Your task to perform on an android device: Go to Android settings Image 0: 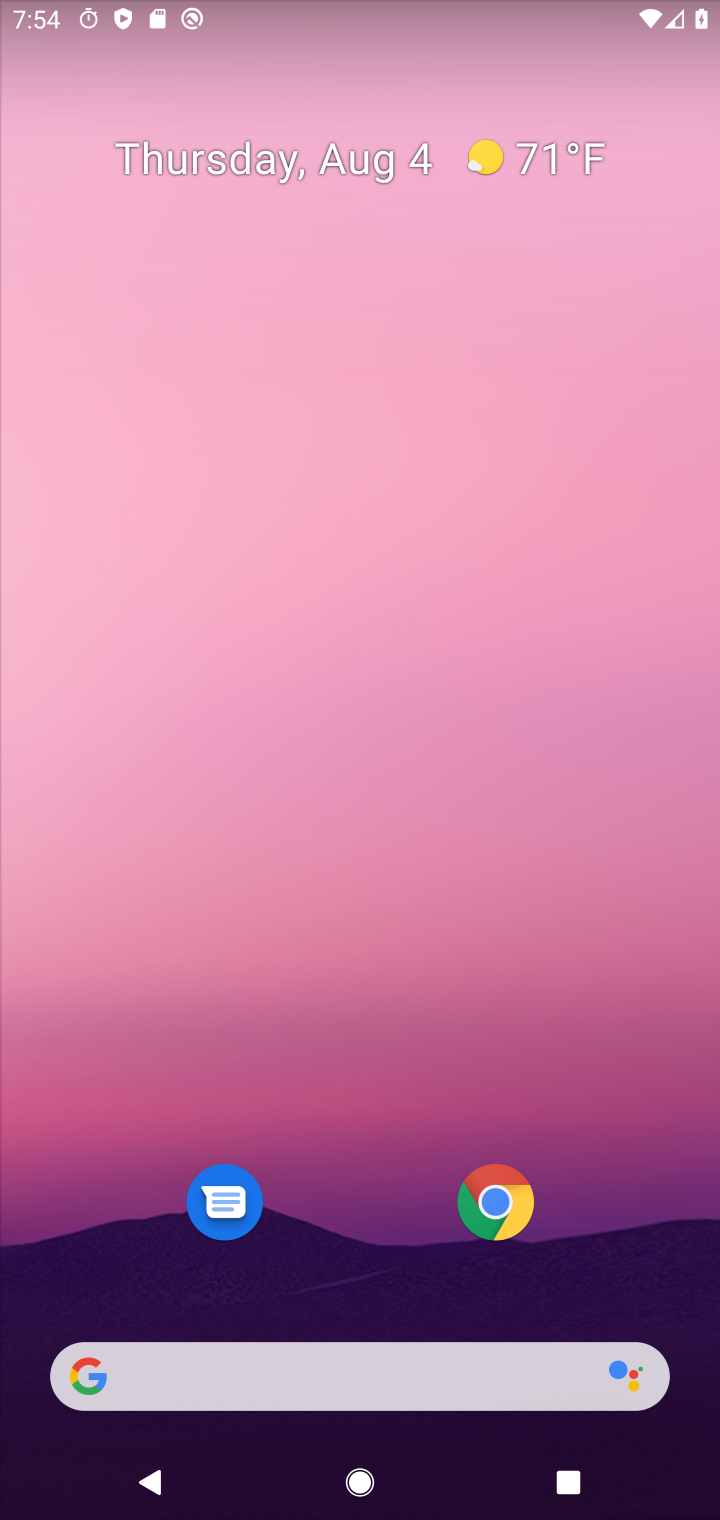
Step 0: click (225, 86)
Your task to perform on an android device: Go to Android settings Image 1: 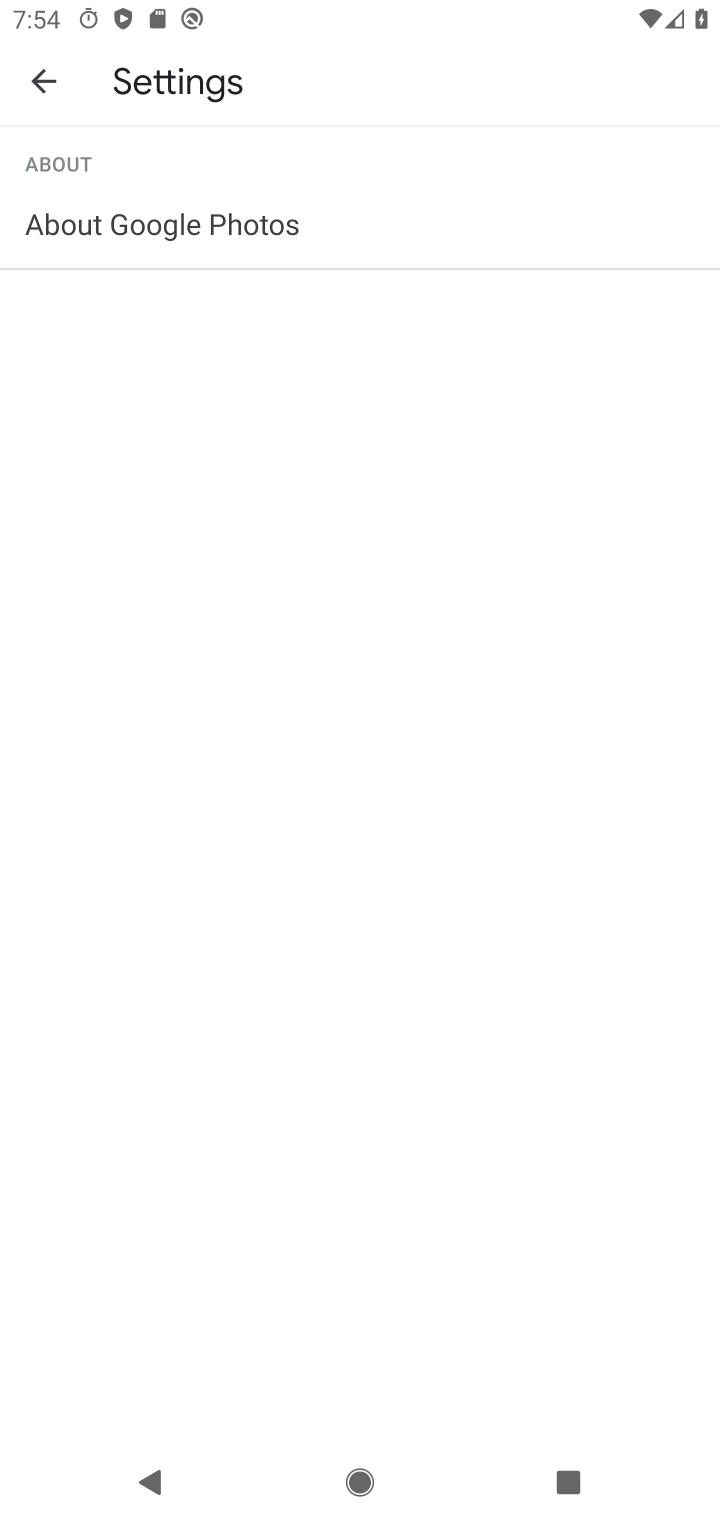
Step 1: press home button
Your task to perform on an android device: Go to Android settings Image 2: 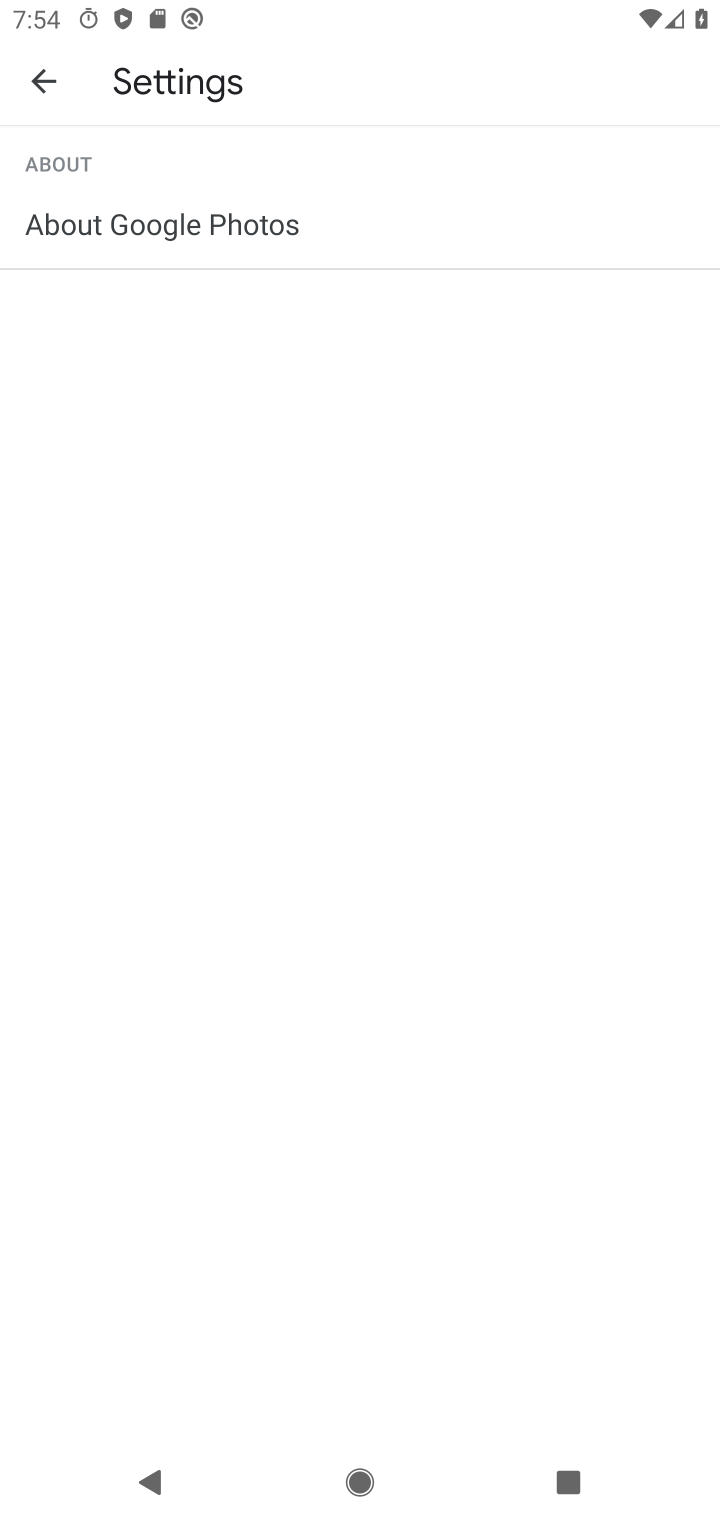
Step 2: press home button
Your task to perform on an android device: Go to Android settings Image 3: 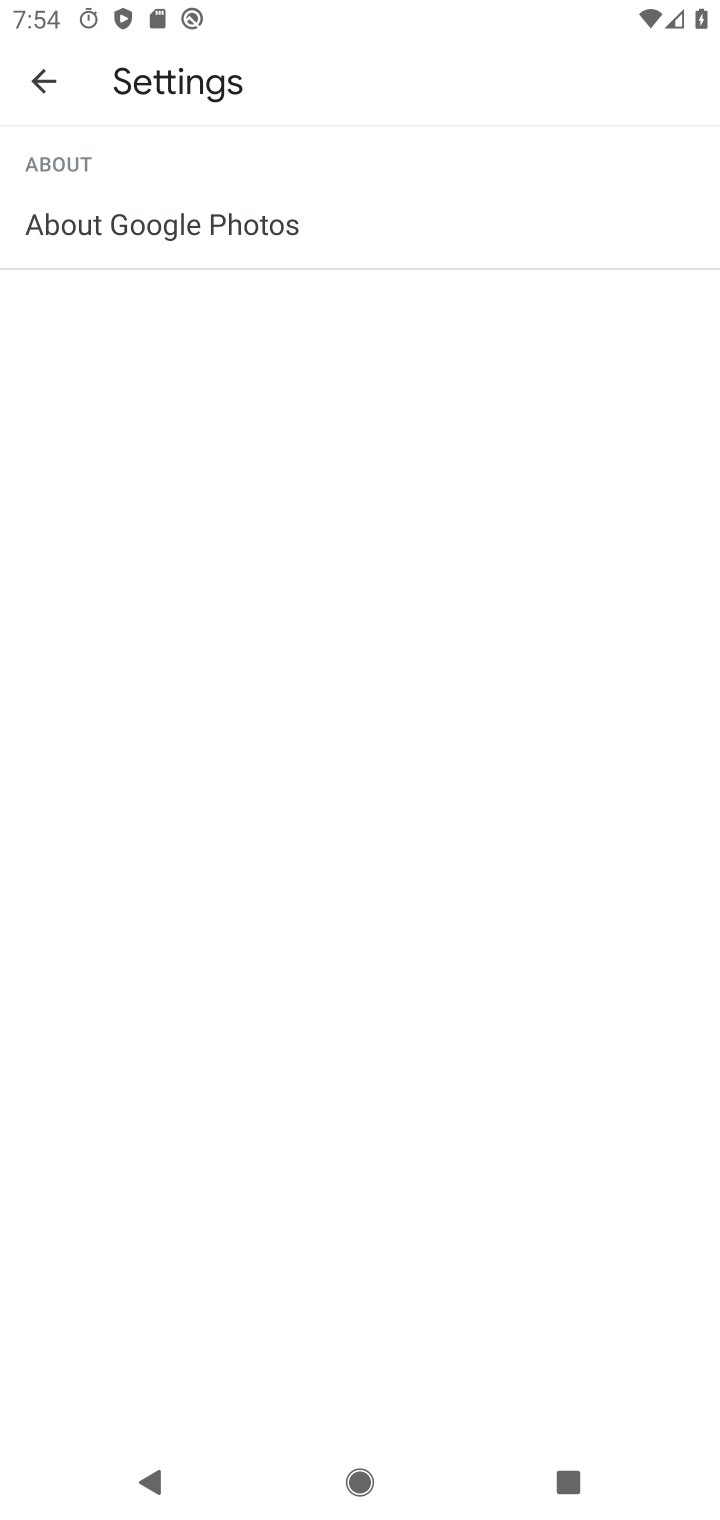
Step 3: drag from (313, 284) to (408, 178)
Your task to perform on an android device: Go to Android settings Image 4: 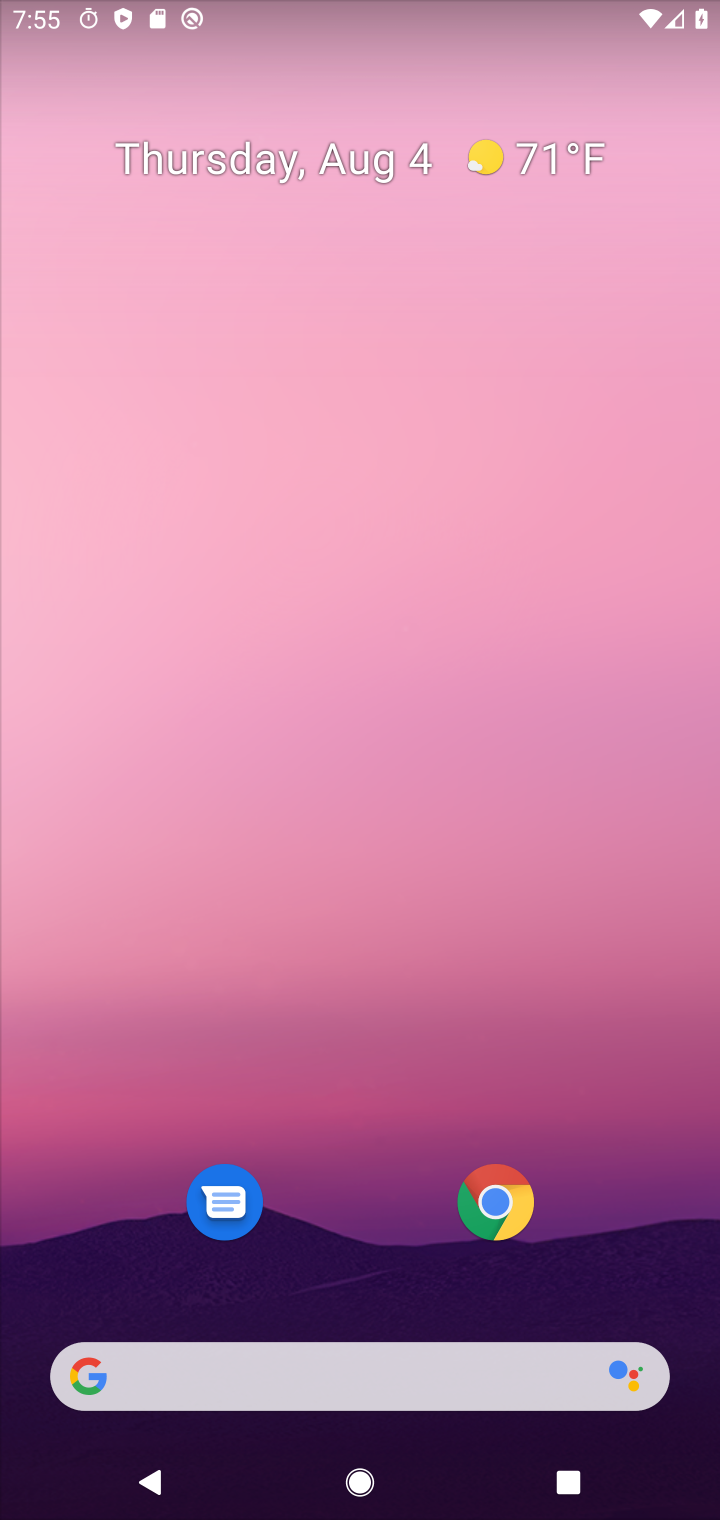
Step 4: drag from (347, 1024) to (512, 93)
Your task to perform on an android device: Go to Android settings Image 5: 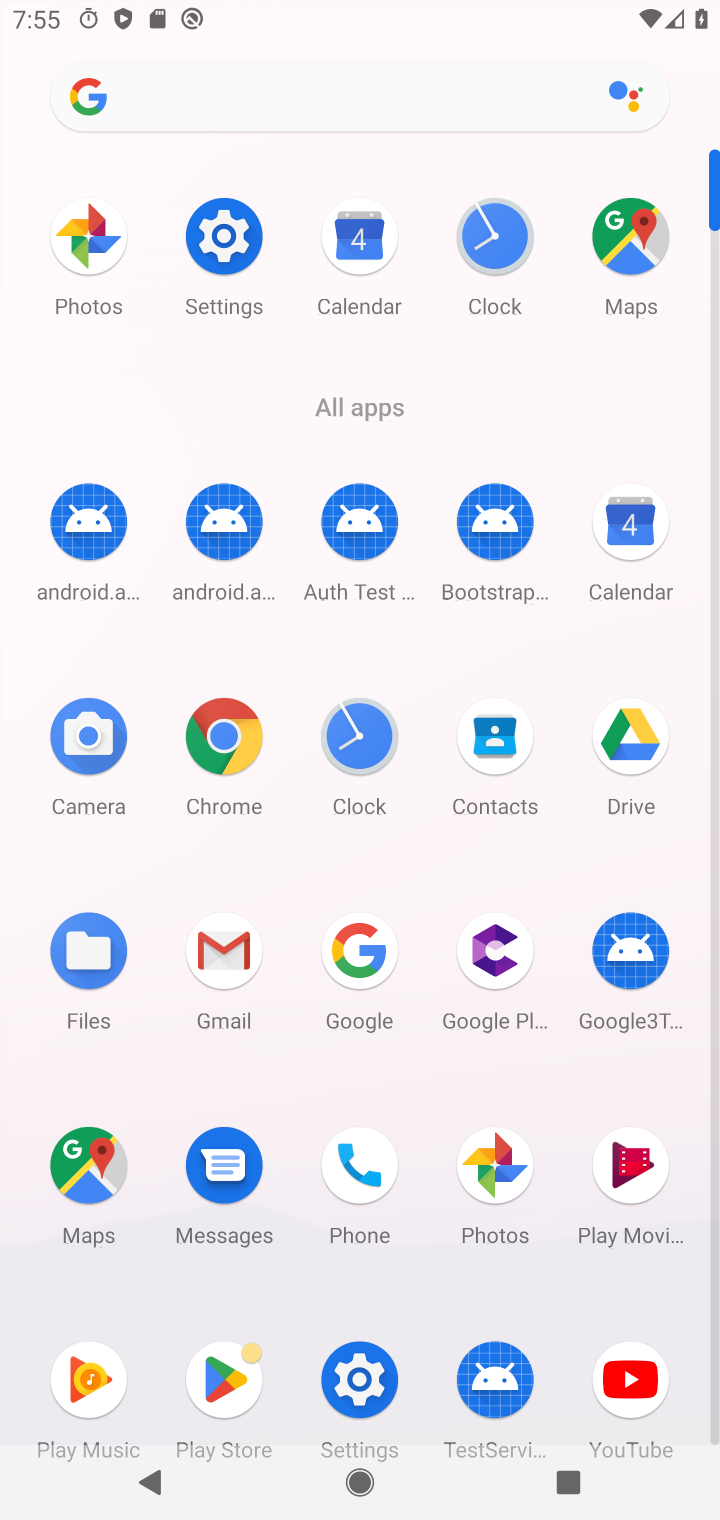
Step 5: click (212, 242)
Your task to perform on an android device: Go to Android settings Image 6: 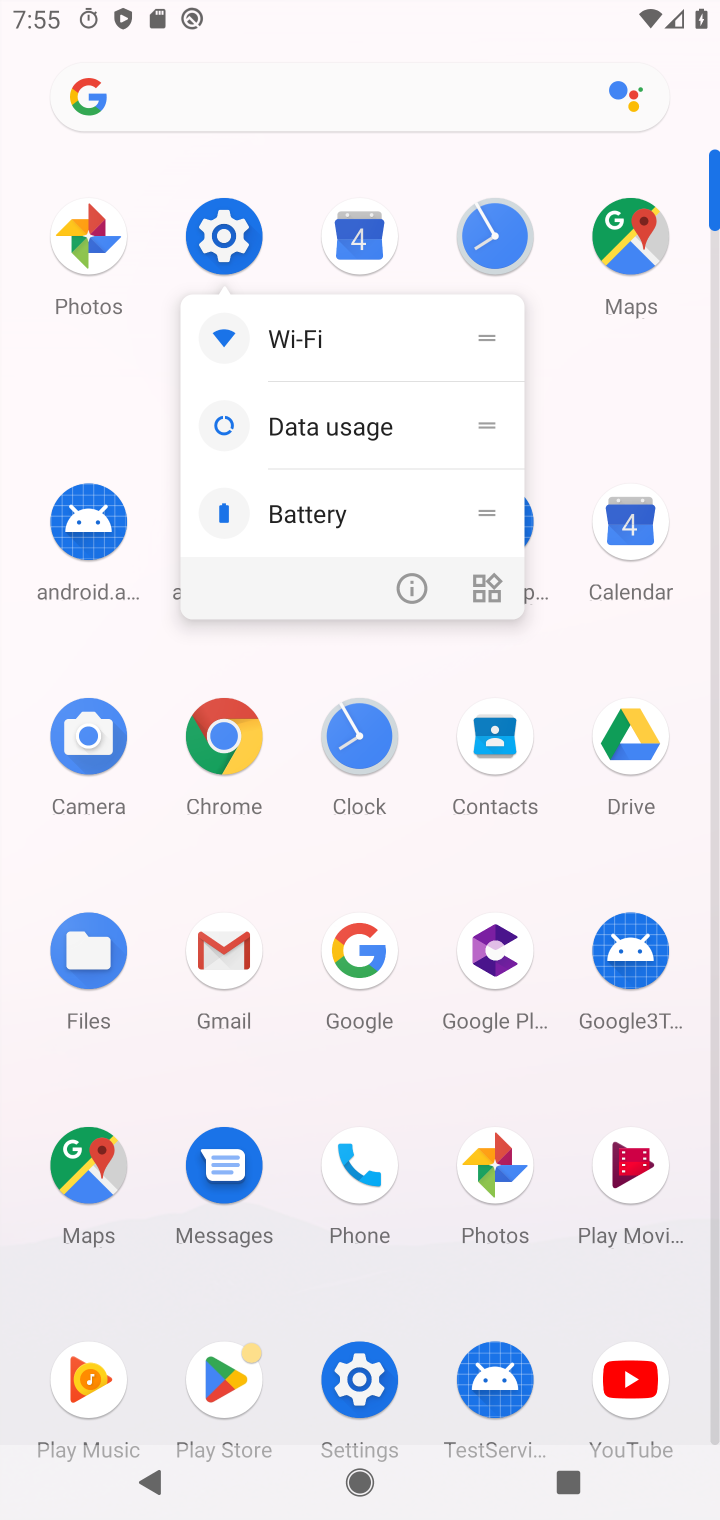
Step 6: click (402, 576)
Your task to perform on an android device: Go to Android settings Image 7: 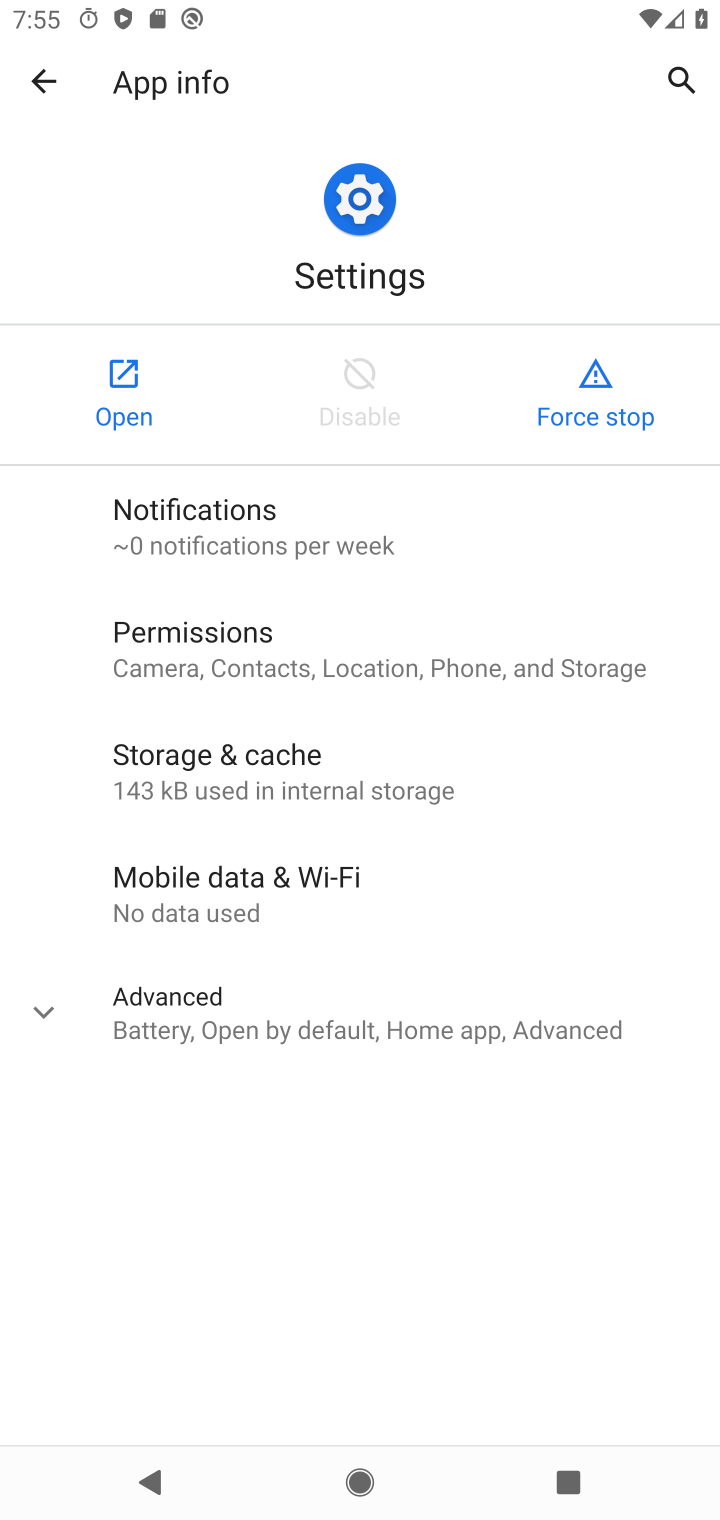
Step 7: click (118, 381)
Your task to perform on an android device: Go to Android settings Image 8: 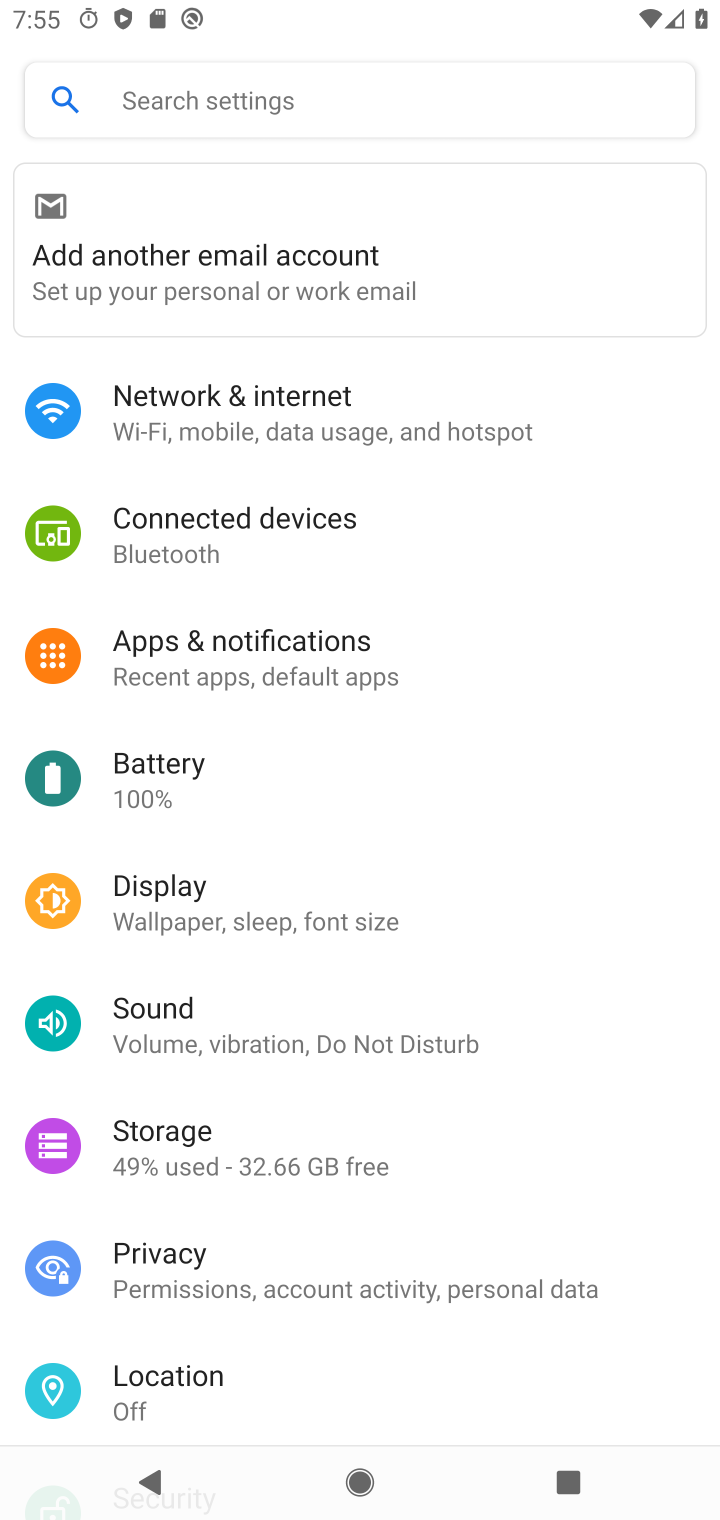
Step 8: drag from (302, 1275) to (533, 252)
Your task to perform on an android device: Go to Android settings Image 9: 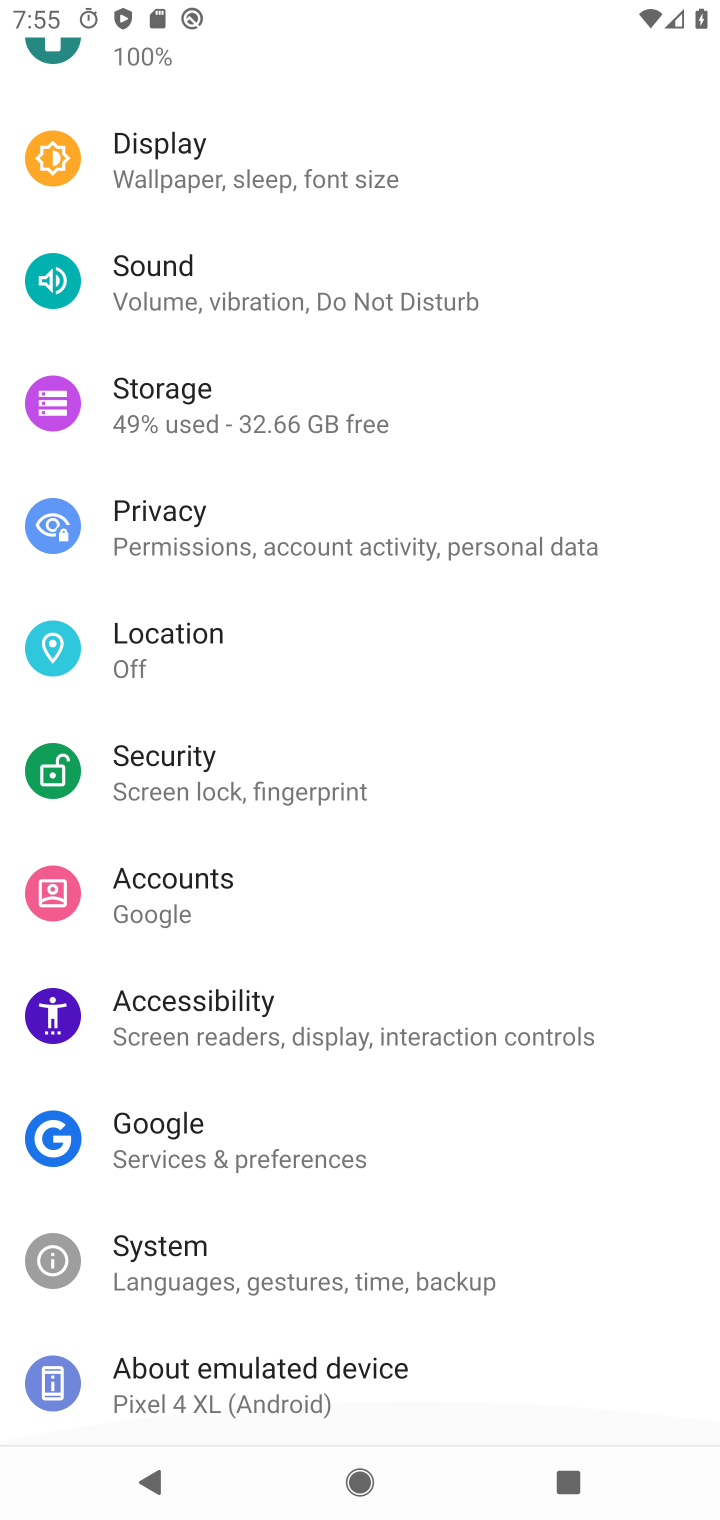
Step 9: drag from (347, 1248) to (582, 226)
Your task to perform on an android device: Go to Android settings Image 10: 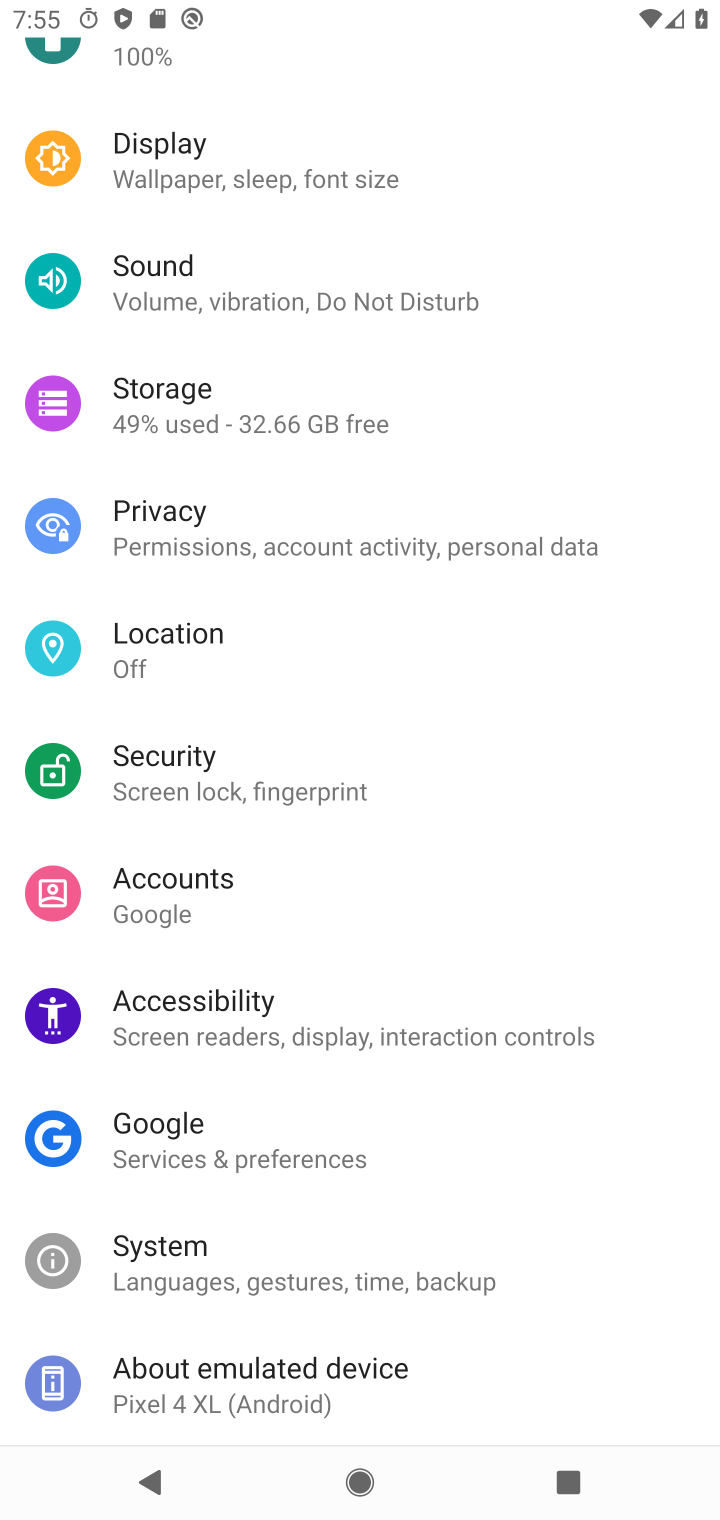
Step 10: click (292, 1355)
Your task to perform on an android device: Go to Android settings Image 11: 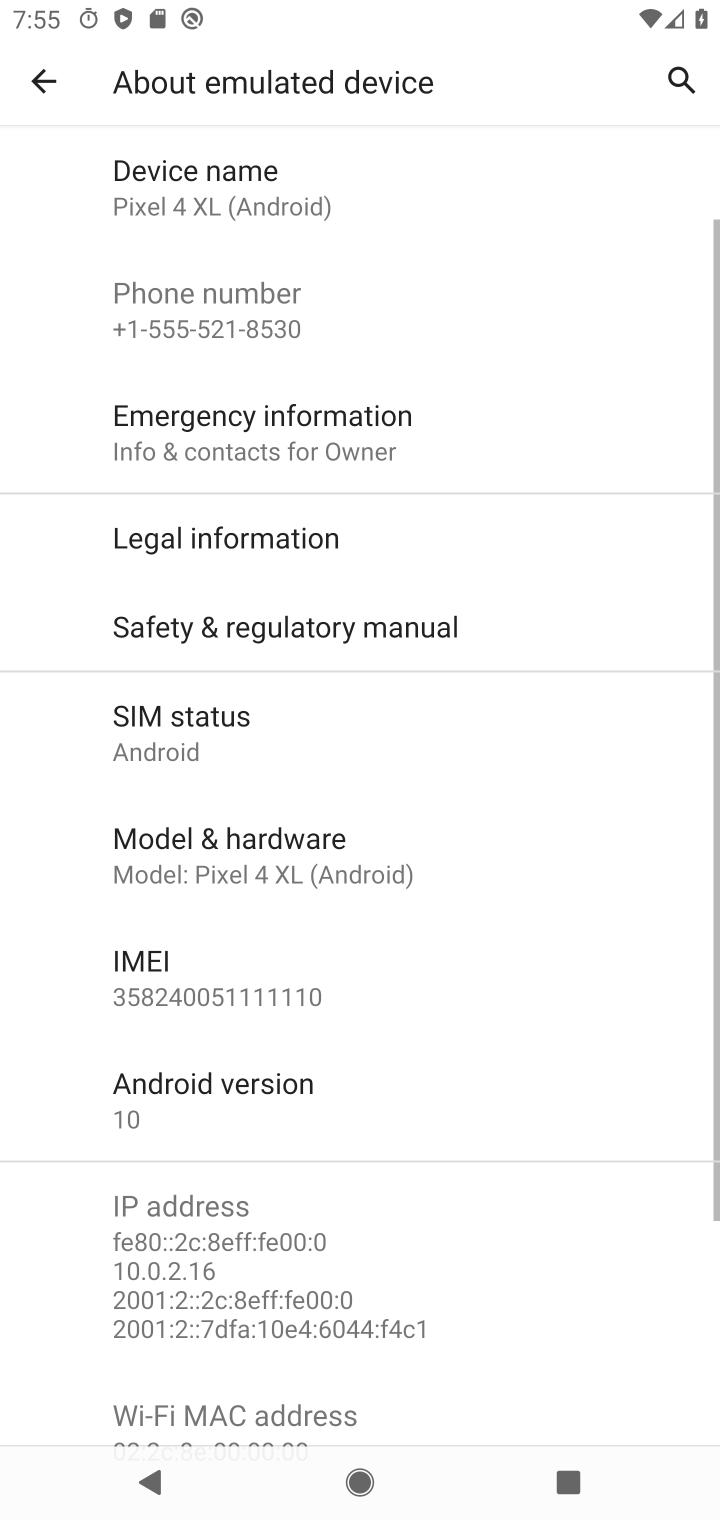
Step 11: click (272, 1108)
Your task to perform on an android device: Go to Android settings Image 12: 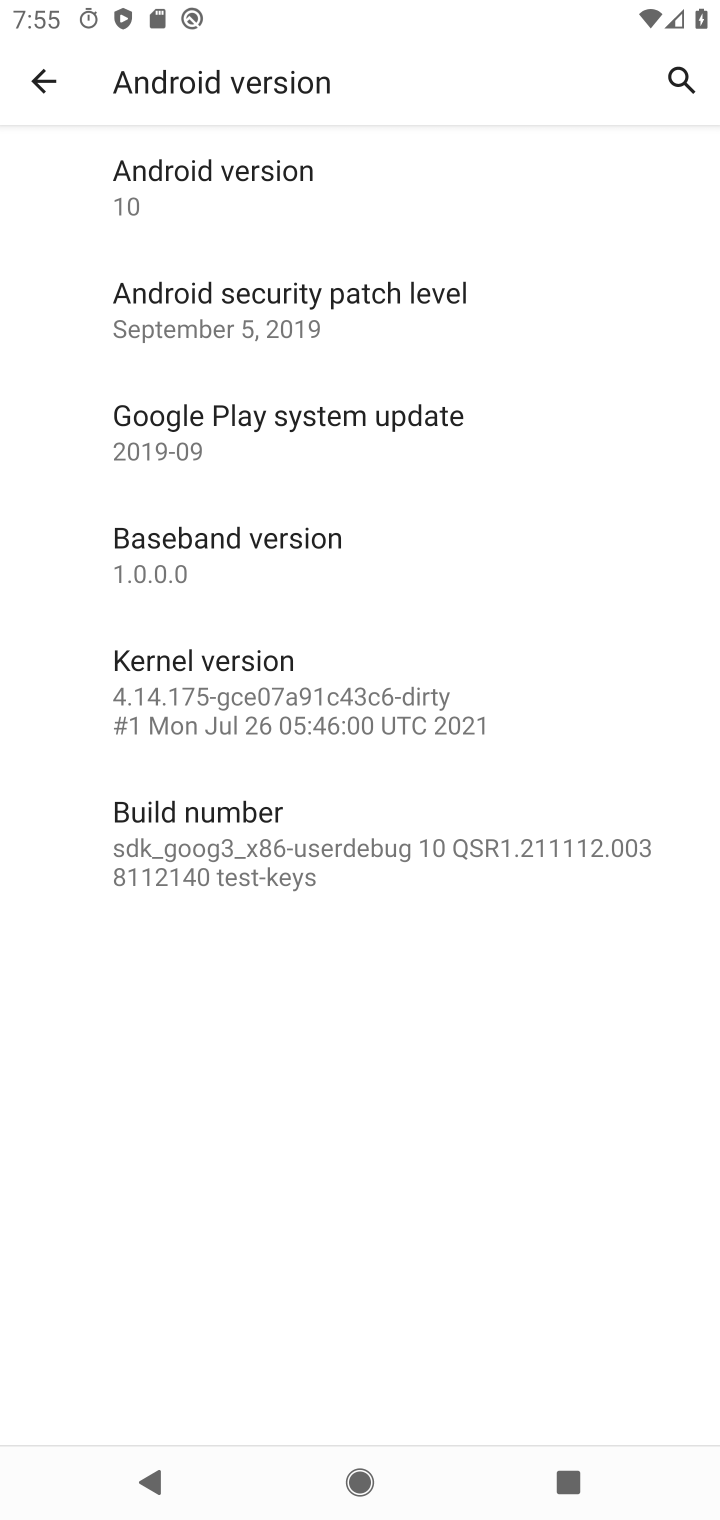
Step 12: click (302, 189)
Your task to perform on an android device: Go to Android settings Image 13: 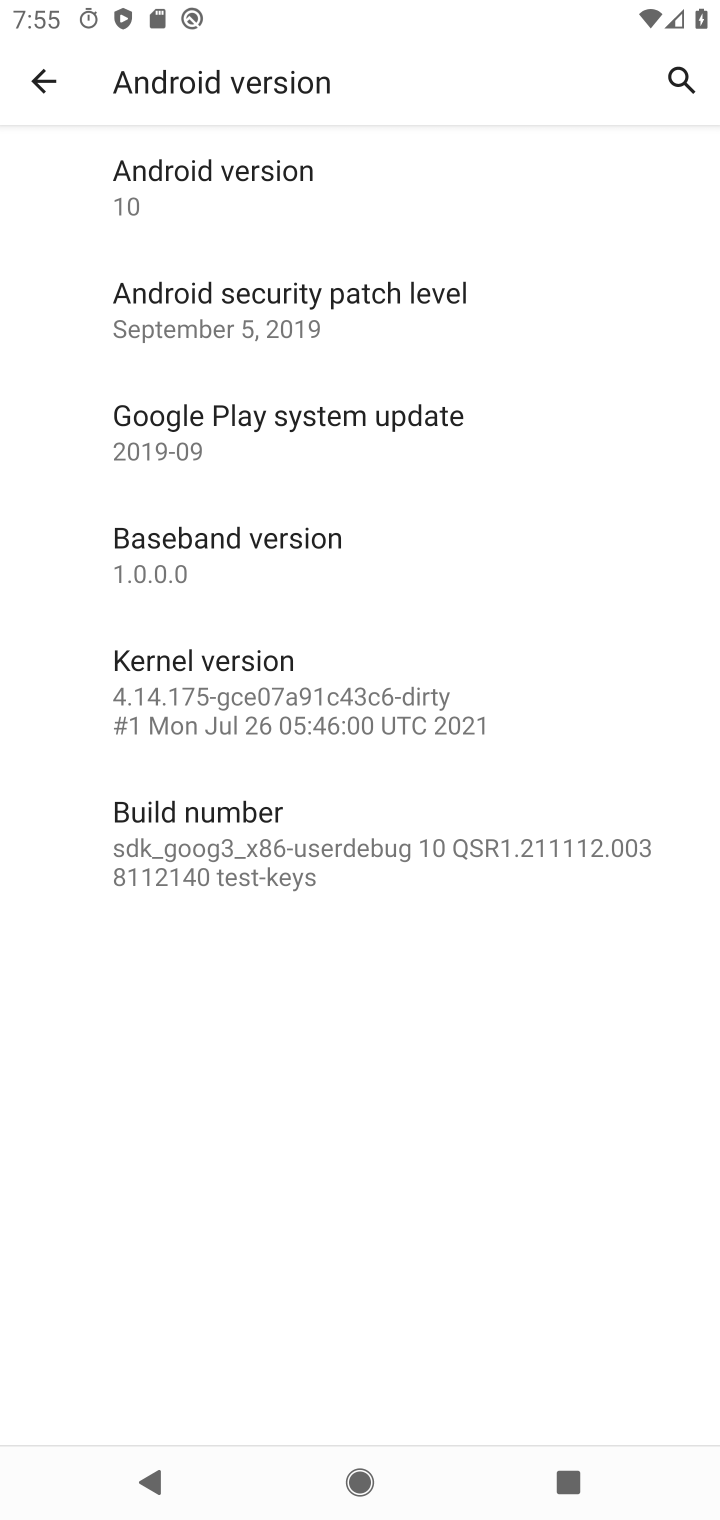
Step 13: task complete